Your task to perform on an android device: set an alarm Image 0: 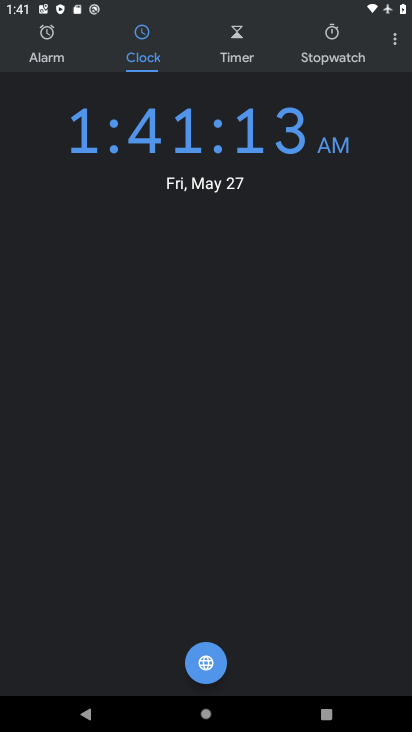
Step 0: press home button
Your task to perform on an android device: set an alarm Image 1: 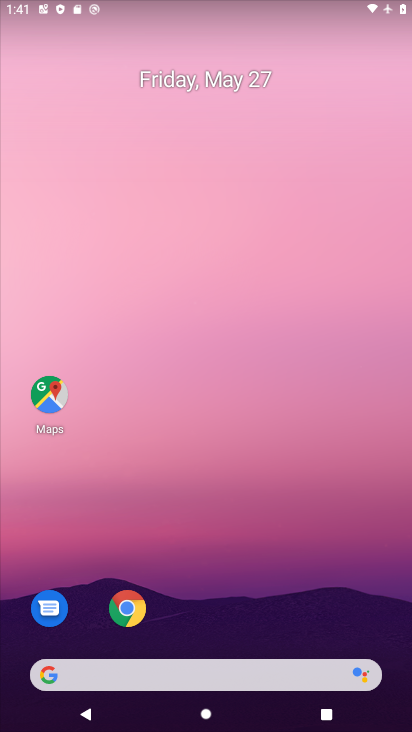
Step 1: drag from (172, 669) to (312, 126)
Your task to perform on an android device: set an alarm Image 2: 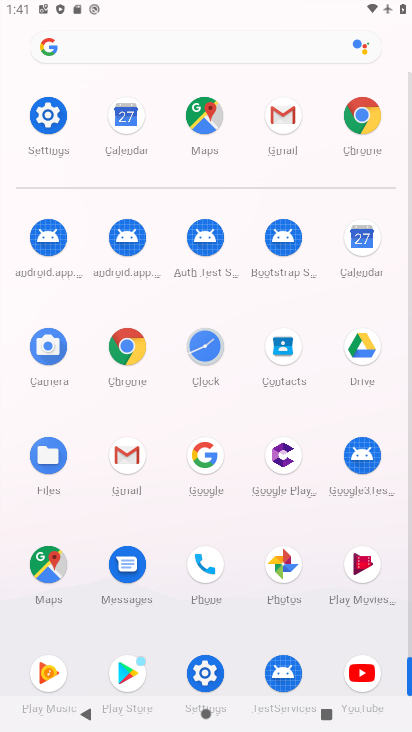
Step 2: click (199, 352)
Your task to perform on an android device: set an alarm Image 3: 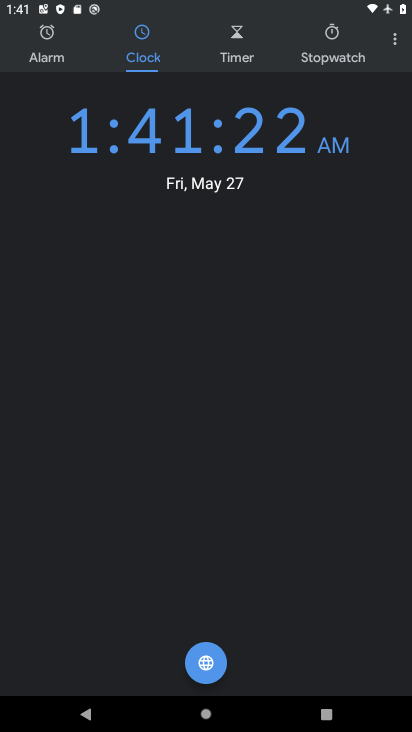
Step 3: click (46, 61)
Your task to perform on an android device: set an alarm Image 4: 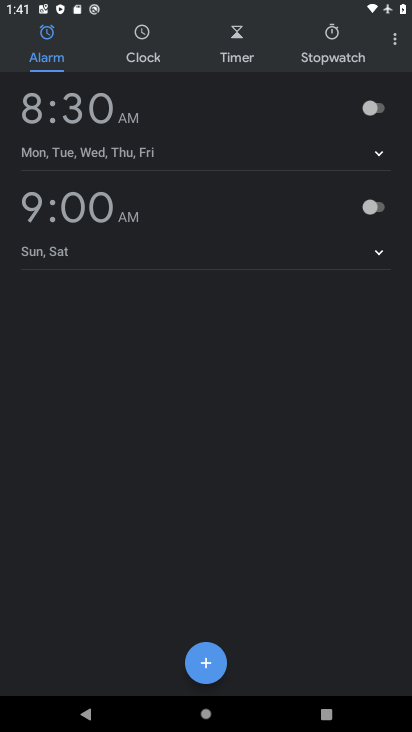
Step 4: click (381, 113)
Your task to perform on an android device: set an alarm Image 5: 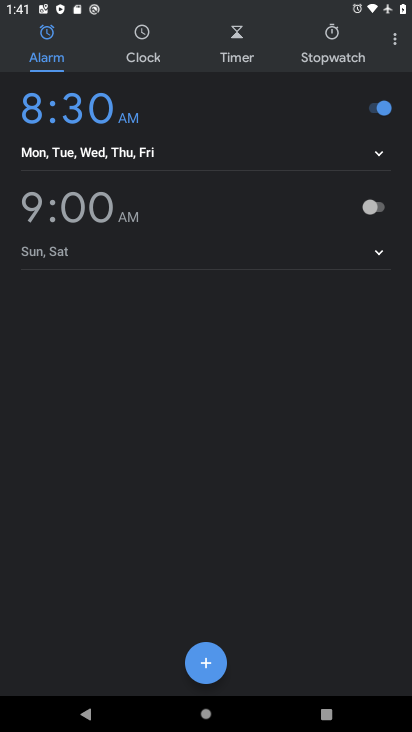
Step 5: task complete